Your task to perform on an android device: Search for seafood restaurants on Google Maps Image 0: 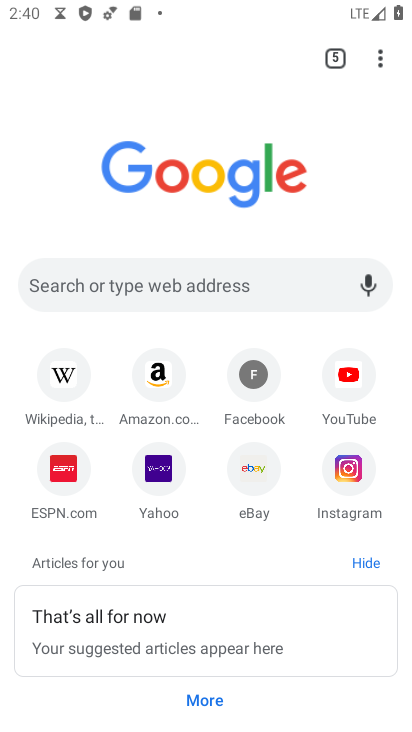
Step 0: press home button
Your task to perform on an android device: Search for seafood restaurants on Google Maps Image 1: 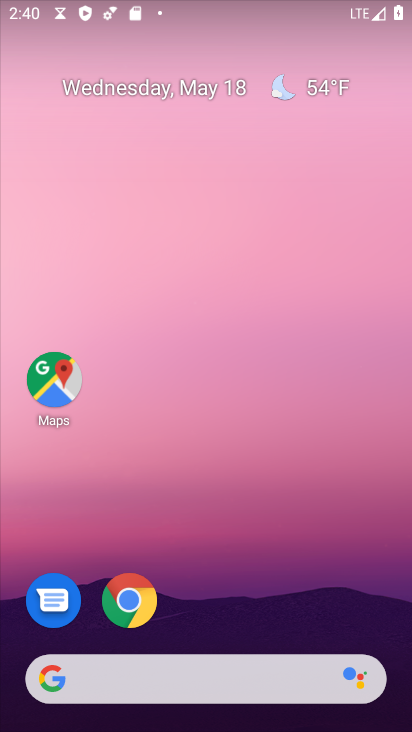
Step 1: click (43, 387)
Your task to perform on an android device: Search for seafood restaurants on Google Maps Image 2: 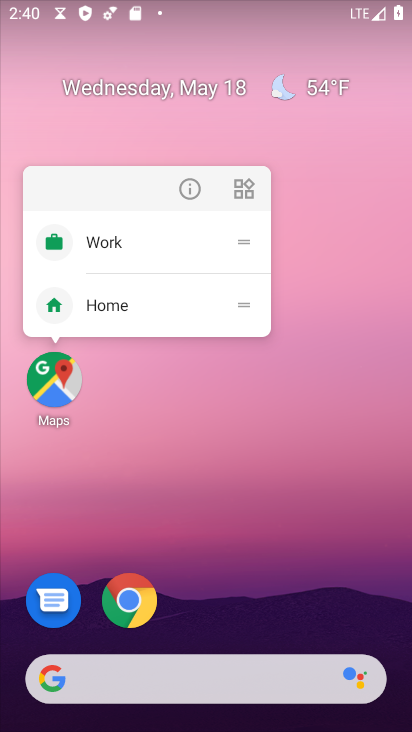
Step 2: click (50, 385)
Your task to perform on an android device: Search for seafood restaurants on Google Maps Image 3: 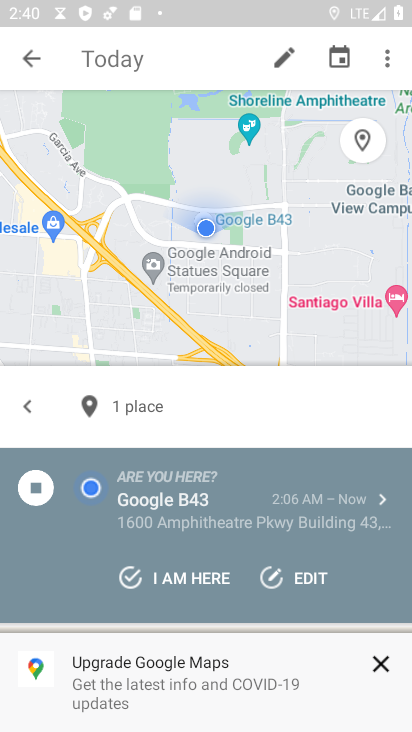
Step 3: click (33, 57)
Your task to perform on an android device: Search for seafood restaurants on Google Maps Image 4: 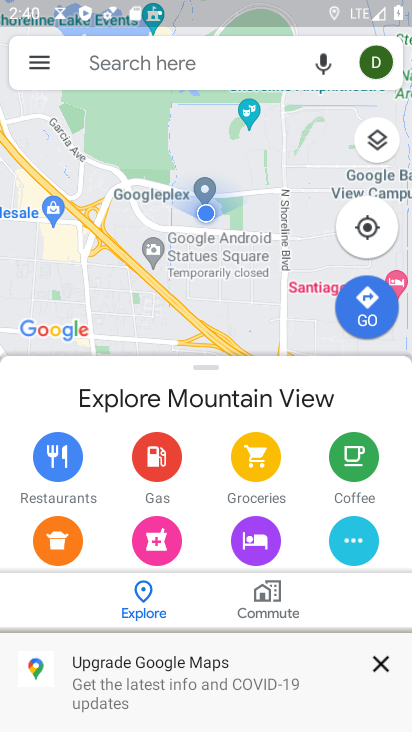
Step 4: click (150, 62)
Your task to perform on an android device: Search for seafood restaurants on Google Maps Image 5: 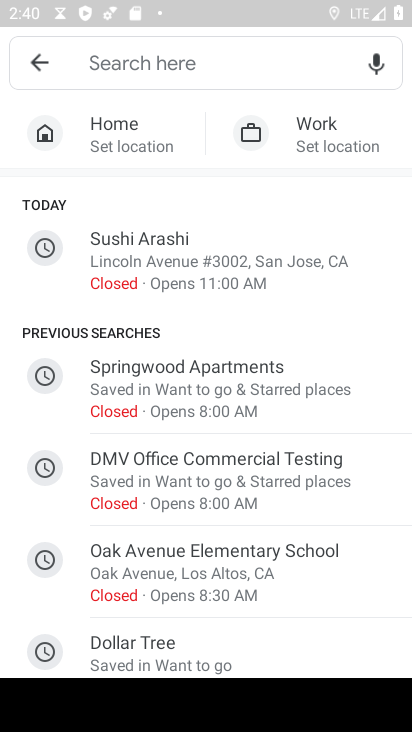
Step 5: drag from (363, 329) to (353, 0)
Your task to perform on an android device: Search for seafood restaurants on Google Maps Image 6: 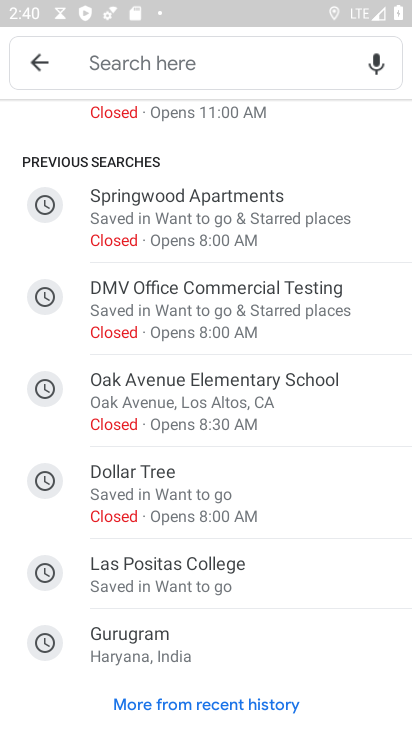
Step 6: click (137, 59)
Your task to perform on an android device: Search for seafood restaurants on Google Maps Image 7: 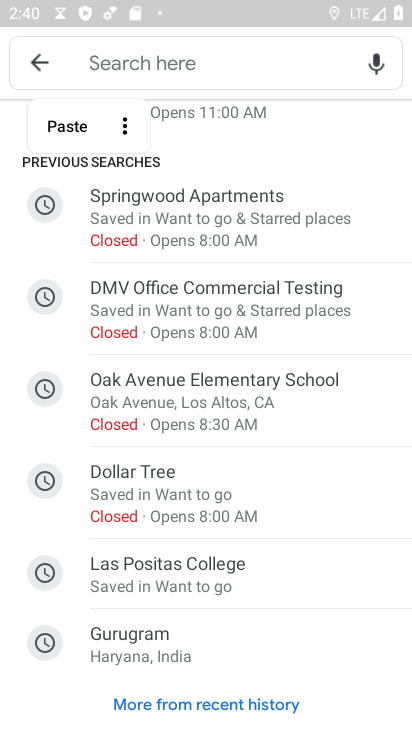
Step 7: type "seafood"
Your task to perform on an android device: Search for seafood restaurants on Google Maps Image 8: 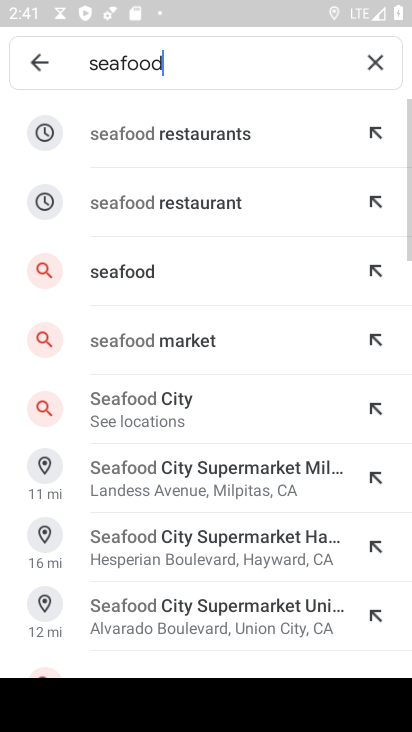
Step 8: click (178, 135)
Your task to perform on an android device: Search for seafood restaurants on Google Maps Image 9: 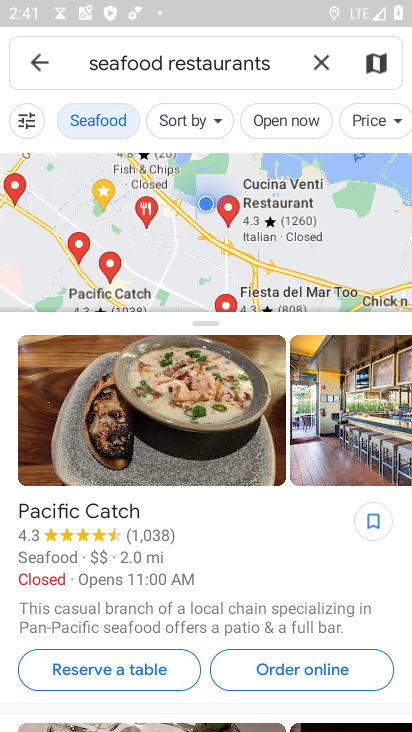
Step 9: task complete